Your task to perform on an android device: turn off smart reply in the gmail app Image 0: 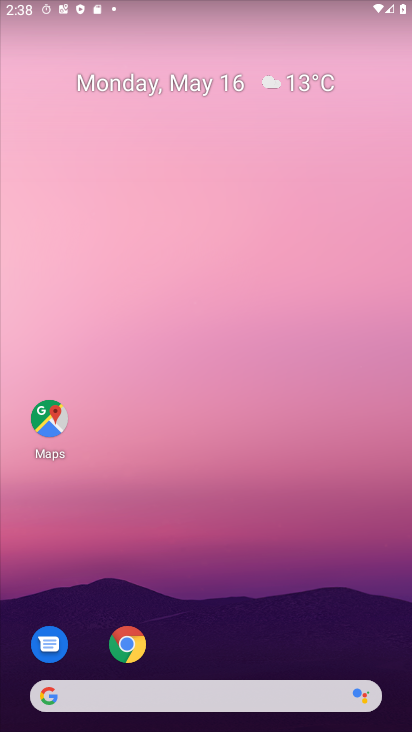
Step 0: drag from (217, 601) to (339, 106)
Your task to perform on an android device: turn off smart reply in the gmail app Image 1: 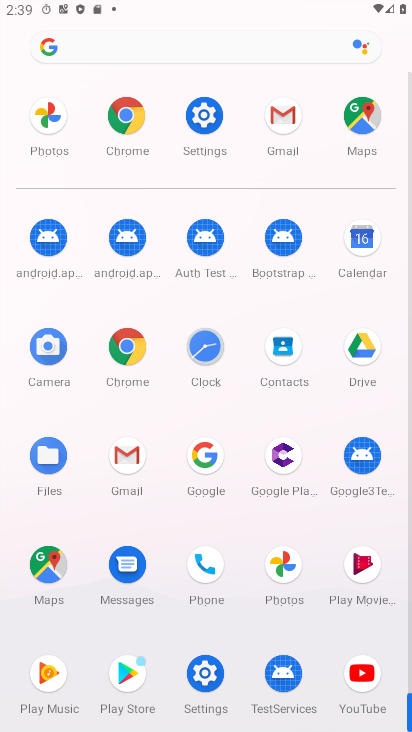
Step 1: click (115, 470)
Your task to perform on an android device: turn off smart reply in the gmail app Image 2: 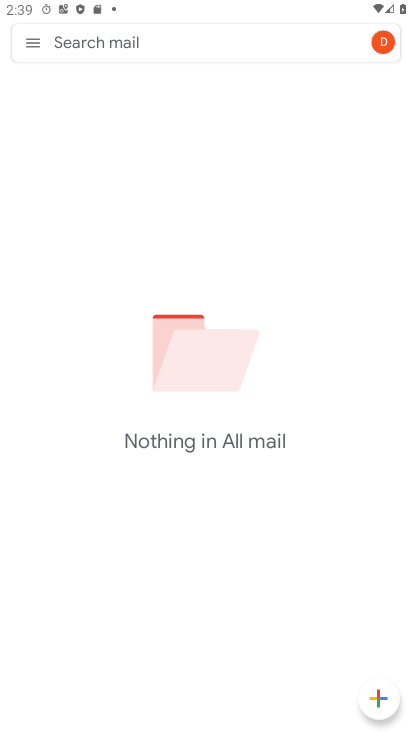
Step 2: click (38, 42)
Your task to perform on an android device: turn off smart reply in the gmail app Image 3: 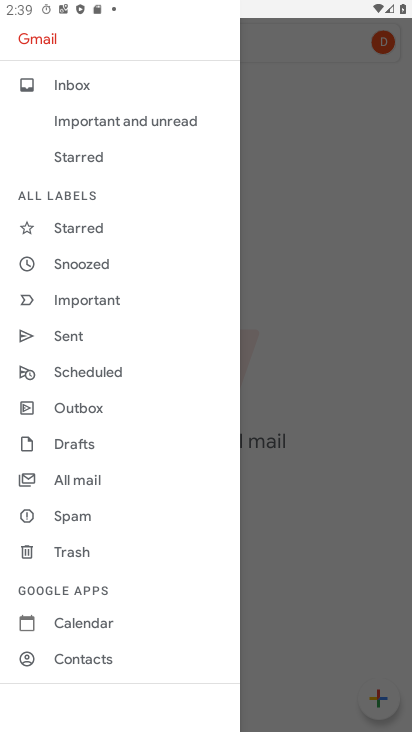
Step 3: drag from (92, 591) to (97, 444)
Your task to perform on an android device: turn off smart reply in the gmail app Image 4: 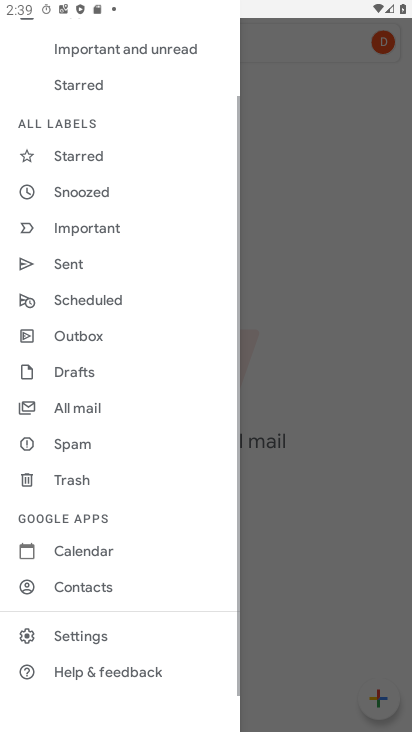
Step 4: click (97, 643)
Your task to perform on an android device: turn off smart reply in the gmail app Image 5: 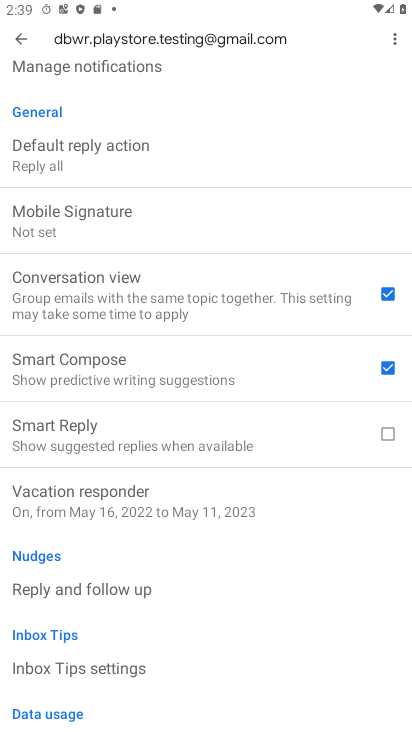
Step 5: task complete